Your task to perform on an android device: turn off priority inbox in the gmail app Image 0: 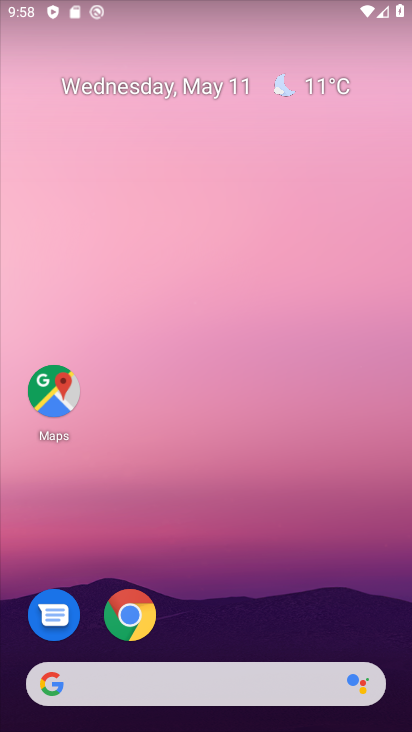
Step 0: drag from (281, 613) to (277, 65)
Your task to perform on an android device: turn off priority inbox in the gmail app Image 1: 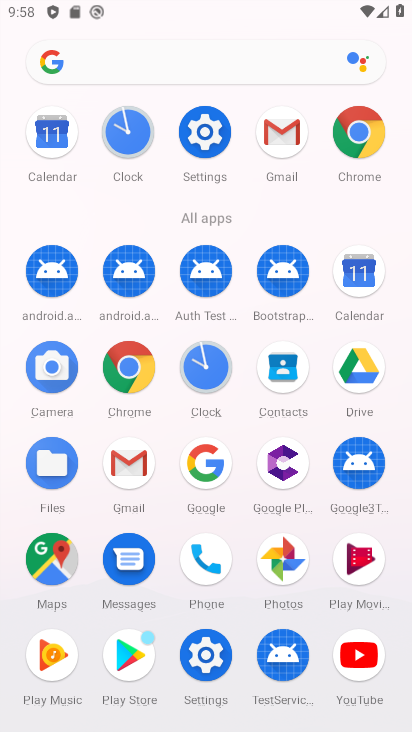
Step 1: click (283, 127)
Your task to perform on an android device: turn off priority inbox in the gmail app Image 2: 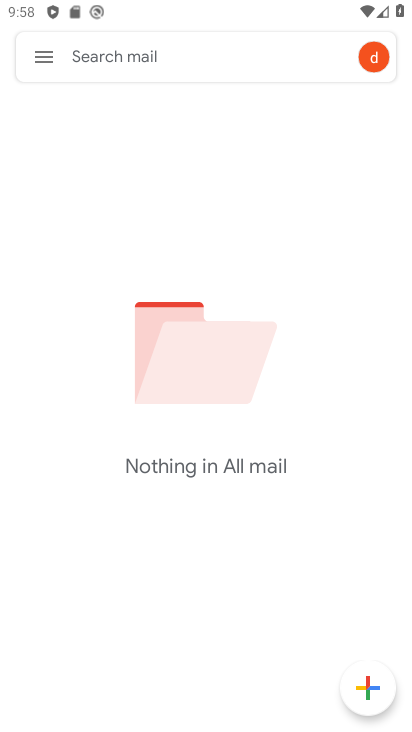
Step 2: click (44, 54)
Your task to perform on an android device: turn off priority inbox in the gmail app Image 3: 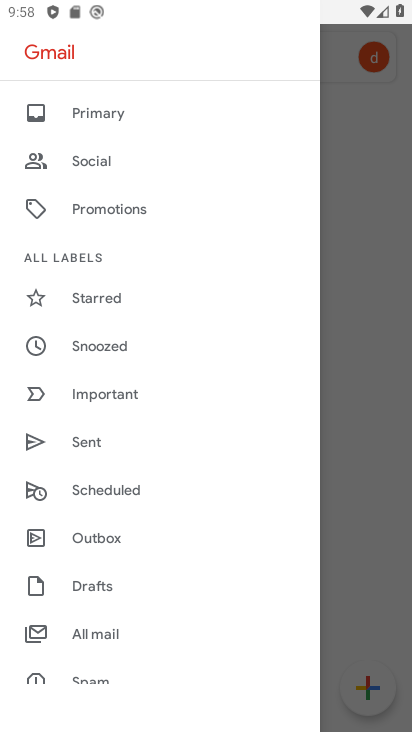
Step 3: drag from (142, 605) to (210, 246)
Your task to perform on an android device: turn off priority inbox in the gmail app Image 4: 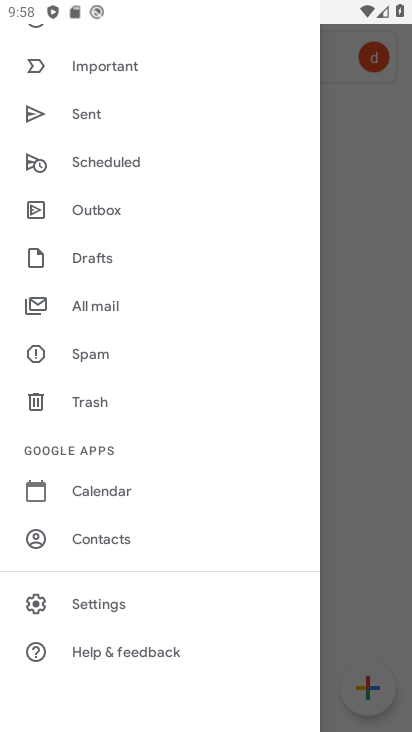
Step 4: click (103, 612)
Your task to perform on an android device: turn off priority inbox in the gmail app Image 5: 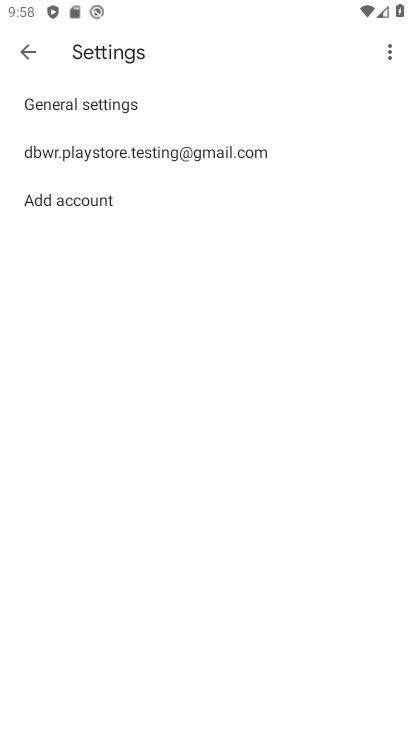
Step 5: click (212, 163)
Your task to perform on an android device: turn off priority inbox in the gmail app Image 6: 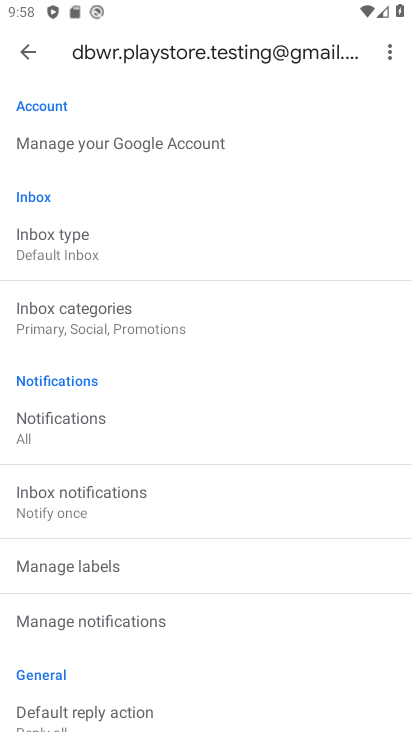
Step 6: click (59, 244)
Your task to perform on an android device: turn off priority inbox in the gmail app Image 7: 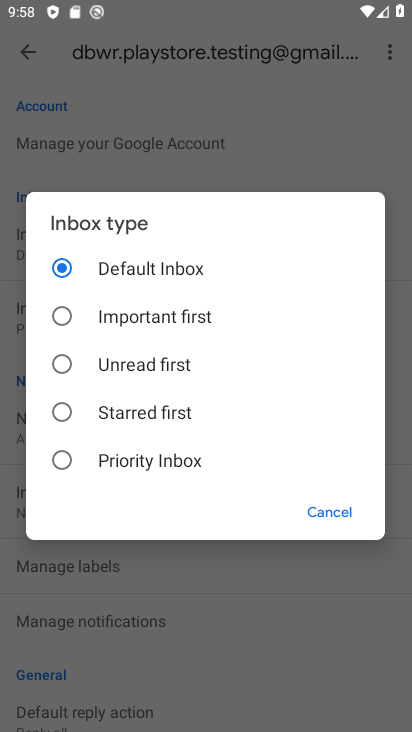
Step 7: task complete